Your task to perform on an android device: See recent photos Image 0: 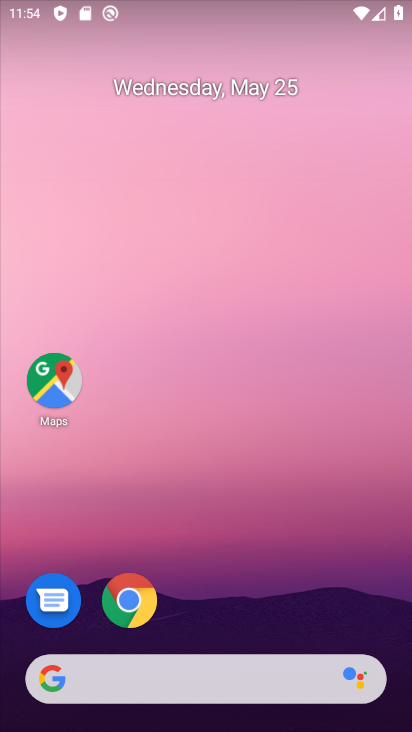
Step 0: drag from (278, 630) to (308, 180)
Your task to perform on an android device: See recent photos Image 1: 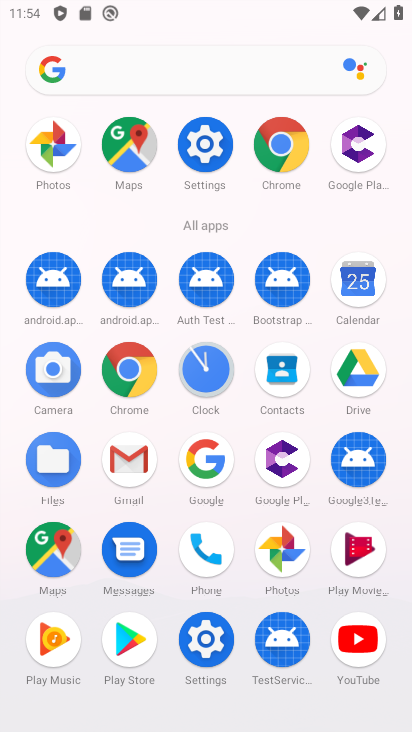
Step 1: click (49, 135)
Your task to perform on an android device: See recent photos Image 2: 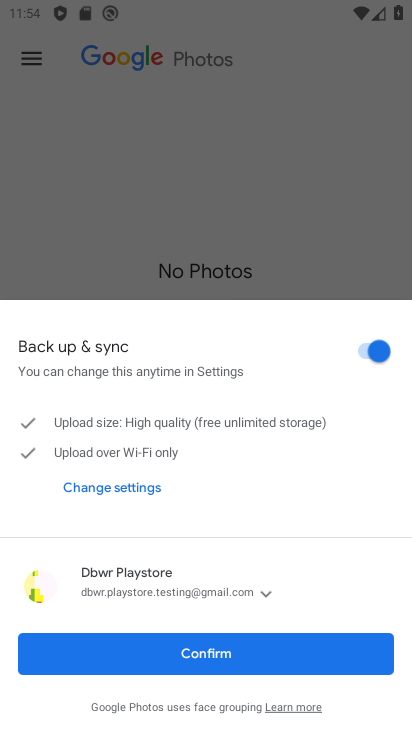
Step 2: click (194, 649)
Your task to perform on an android device: See recent photos Image 3: 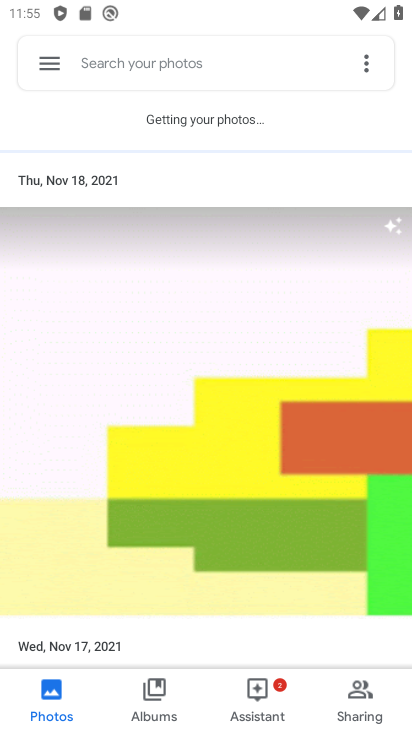
Step 3: task complete